Your task to perform on an android device: Open Reddit.com Image 0: 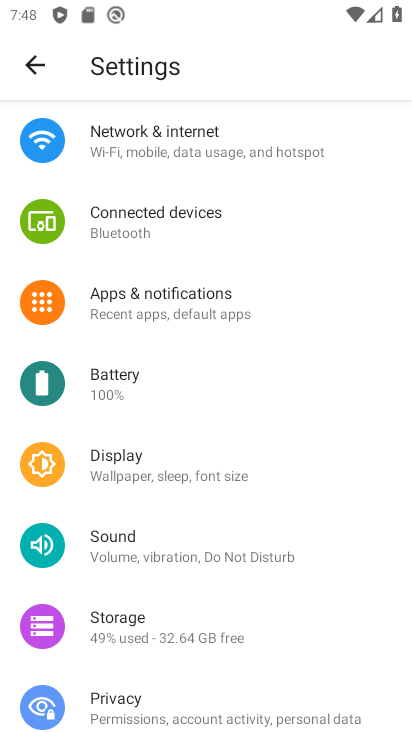
Step 0: press home button
Your task to perform on an android device: Open Reddit.com Image 1: 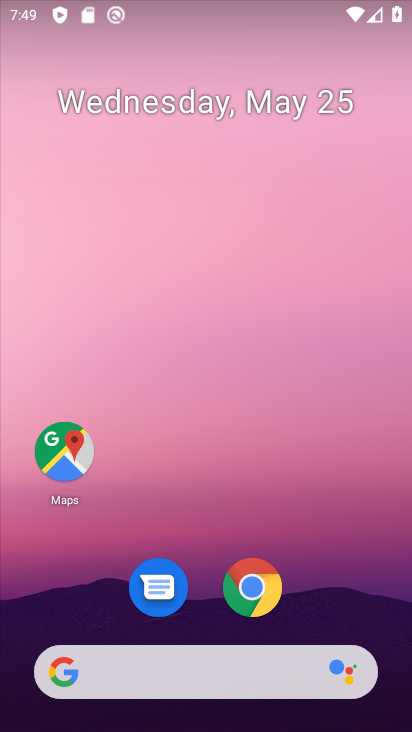
Step 1: click (267, 577)
Your task to perform on an android device: Open Reddit.com Image 2: 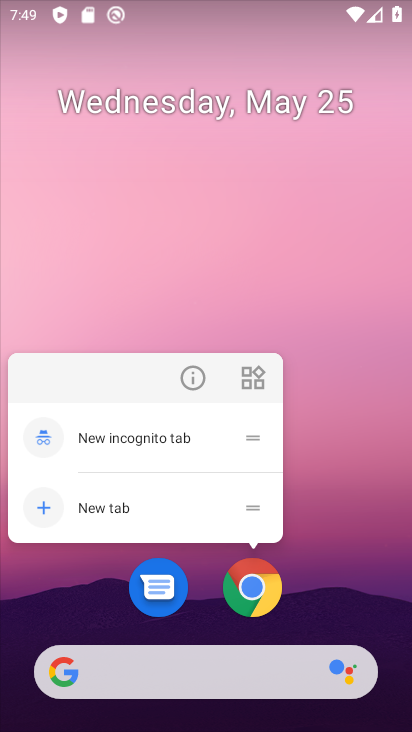
Step 2: click (263, 584)
Your task to perform on an android device: Open Reddit.com Image 3: 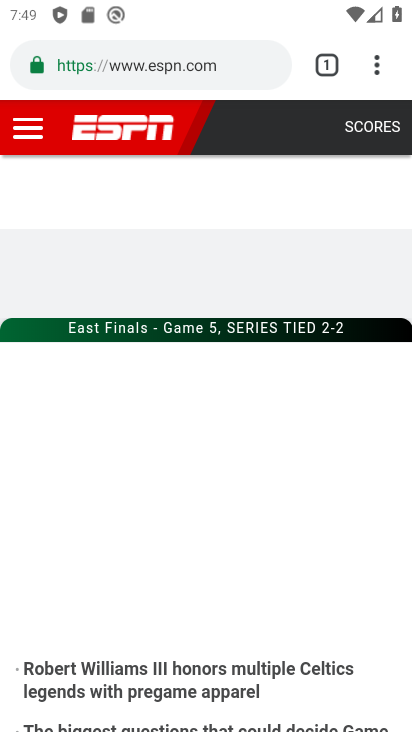
Step 3: click (207, 64)
Your task to perform on an android device: Open Reddit.com Image 4: 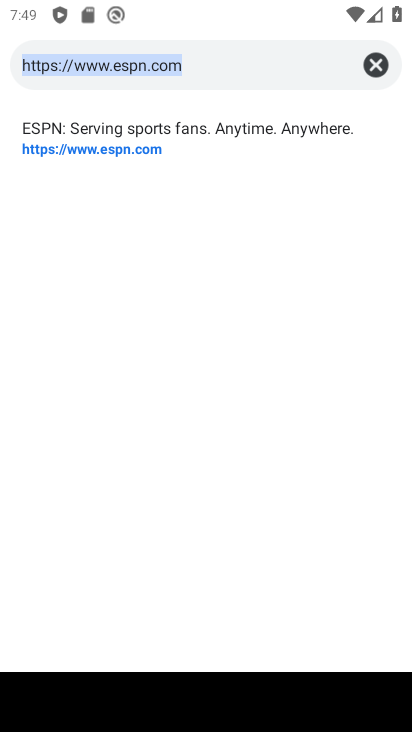
Step 4: click (381, 59)
Your task to perform on an android device: Open Reddit.com Image 5: 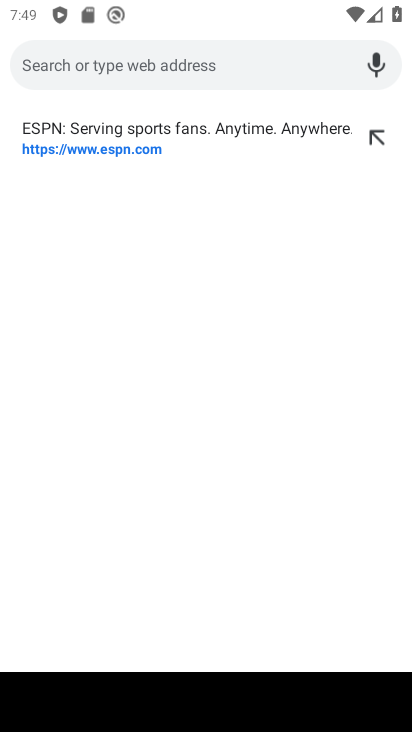
Step 5: type "Reddit.com"
Your task to perform on an android device: Open Reddit.com Image 6: 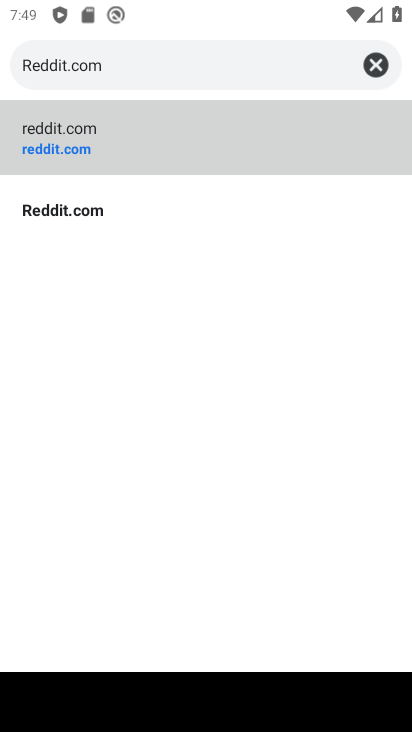
Step 6: click (73, 141)
Your task to perform on an android device: Open Reddit.com Image 7: 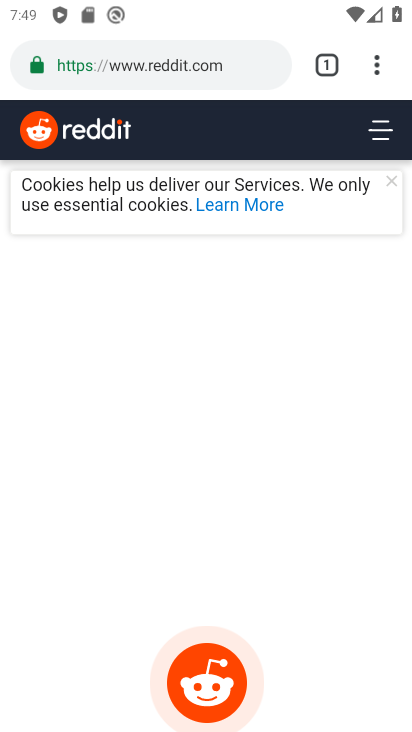
Step 7: task complete